Your task to perform on an android device: Search for vegetarian restaurants on Maps Image 0: 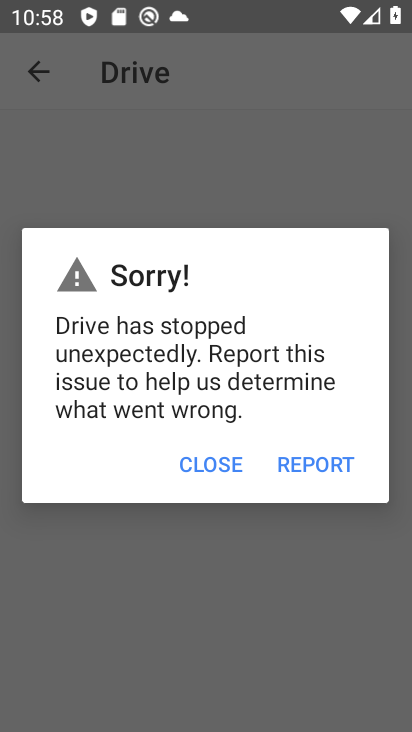
Step 0: press home button
Your task to perform on an android device: Search for vegetarian restaurants on Maps Image 1: 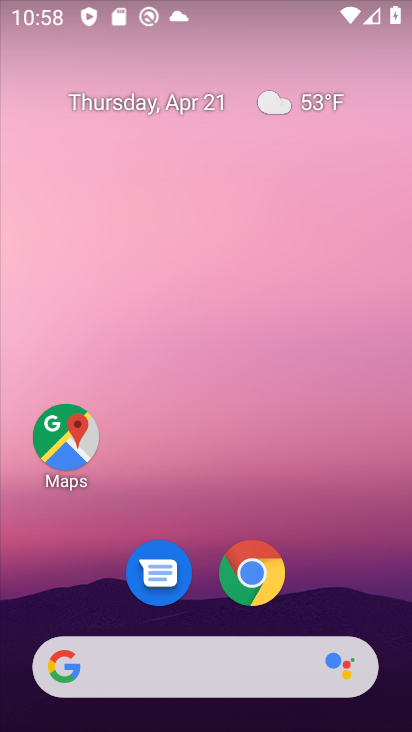
Step 1: drag from (339, 593) to (337, 148)
Your task to perform on an android device: Search for vegetarian restaurants on Maps Image 2: 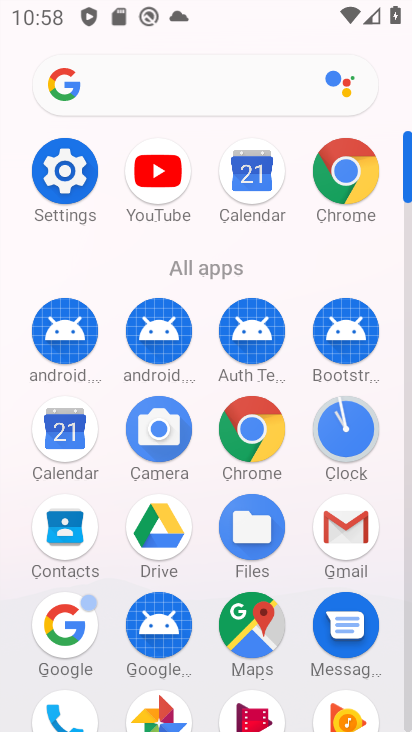
Step 2: drag from (302, 291) to (308, 24)
Your task to perform on an android device: Search for vegetarian restaurants on Maps Image 3: 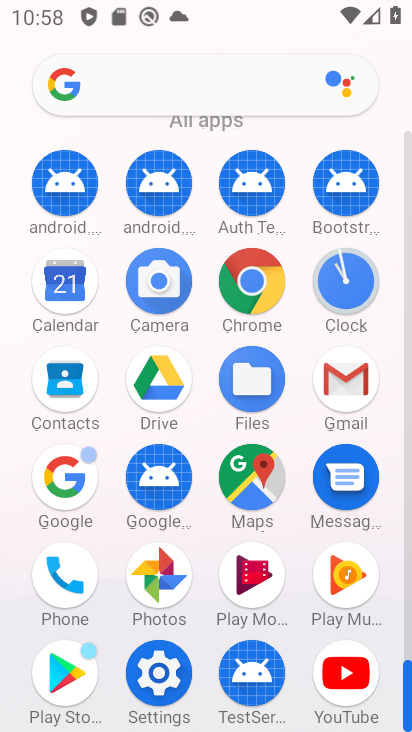
Step 3: click (256, 478)
Your task to perform on an android device: Search for vegetarian restaurants on Maps Image 4: 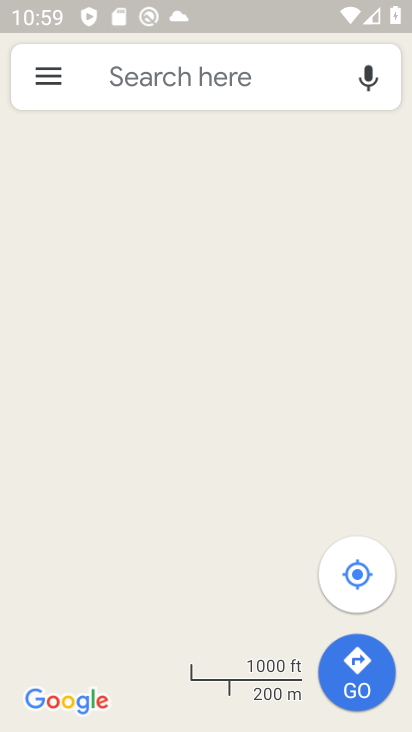
Step 4: click (185, 88)
Your task to perform on an android device: Search for vegetarian restaurants on Maps Image 5: 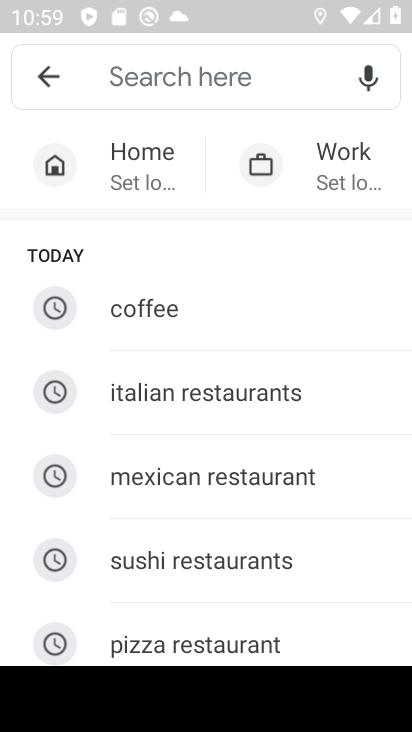
Step 5: type " vegetarian restaurants"
Your task to perform on an android device: Search for vegetarian restaurants on Maps Image 6: 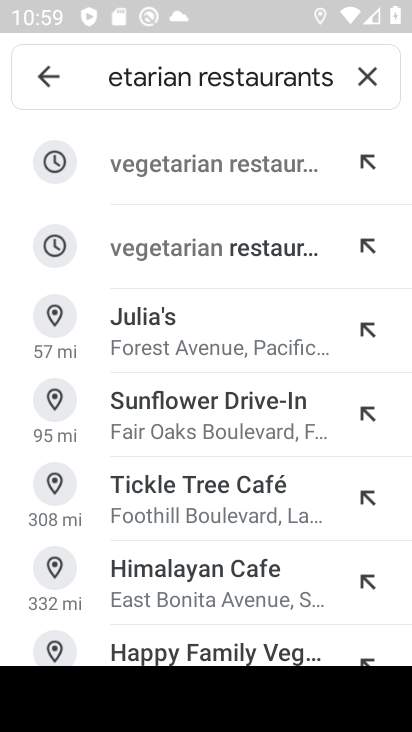
Step 6: click (224, 161)
Your task to perform on an android device: Search for vegetarian restaurants on Maps Image 7: 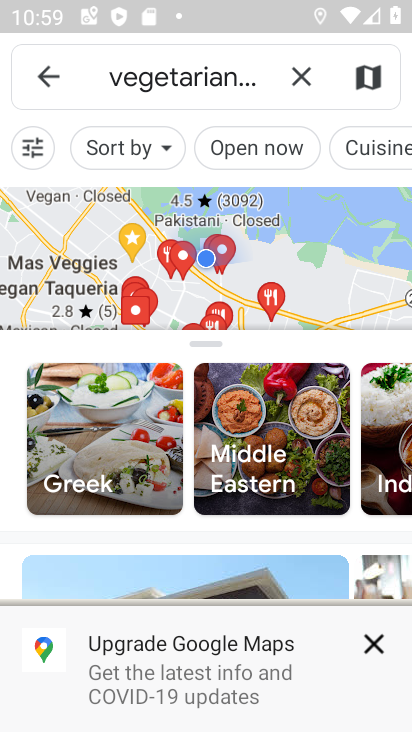
Step 7: task complete